Your task to perform on an android device: stop showing notifications on the lock screen Image 0: 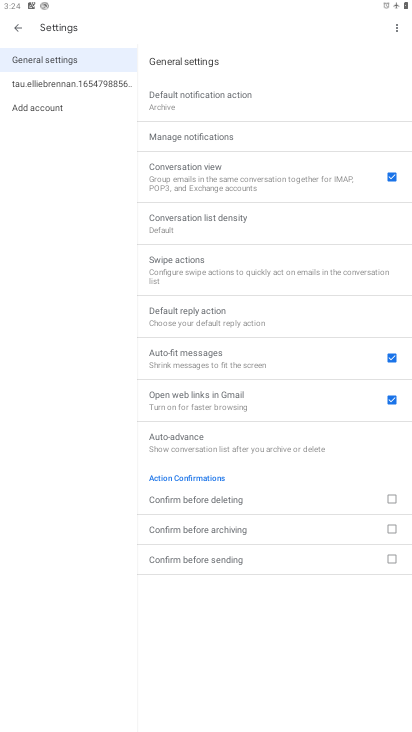
Step 0: press home button
Your task to perform on an android device: stop showing notifications on the lock screen Image 1: 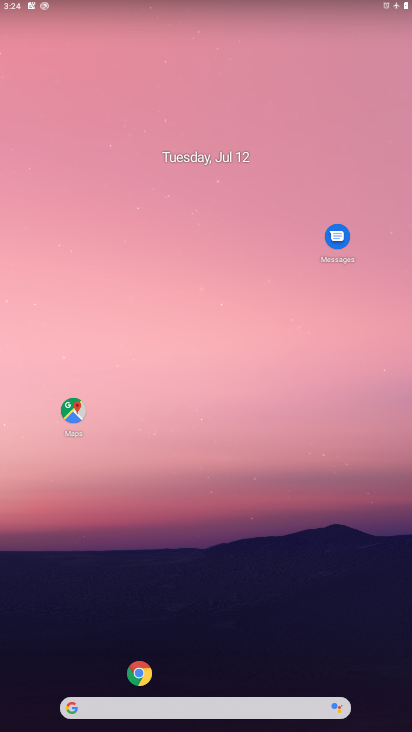
Step 1: drag from (52, 704) to (144, 237)
Your task to perform on an android device: stop showing notifications on the lock screen Image 2: 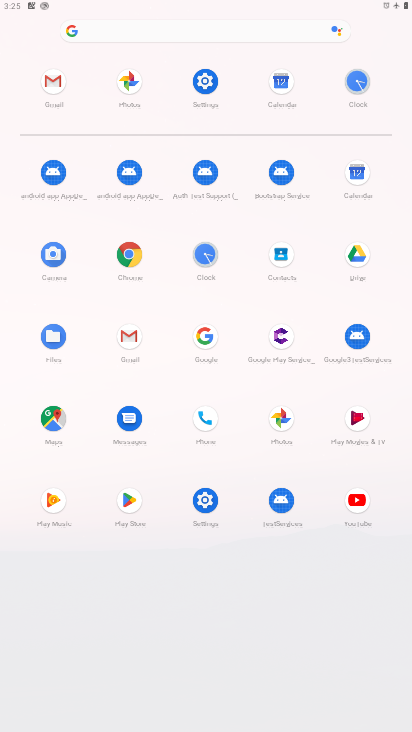
Step 2: click (201, 507)
Your task to perform on an android device: stop showing notifications on the lock screen Image 3: 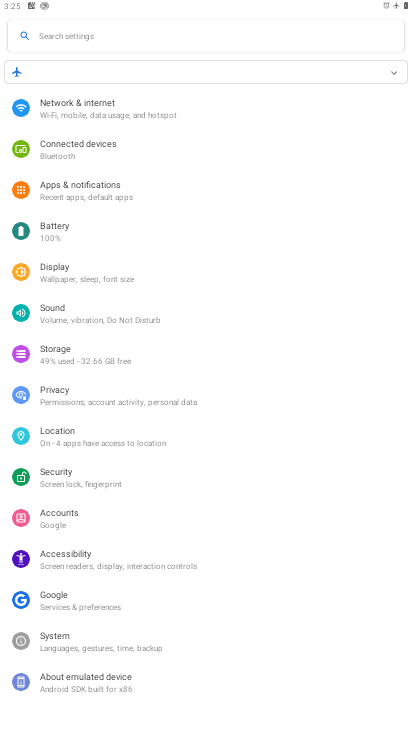
Step 3: click (97, 197)
Your task to perform on an android device: stop showing notifications on the lock screen Image 4: 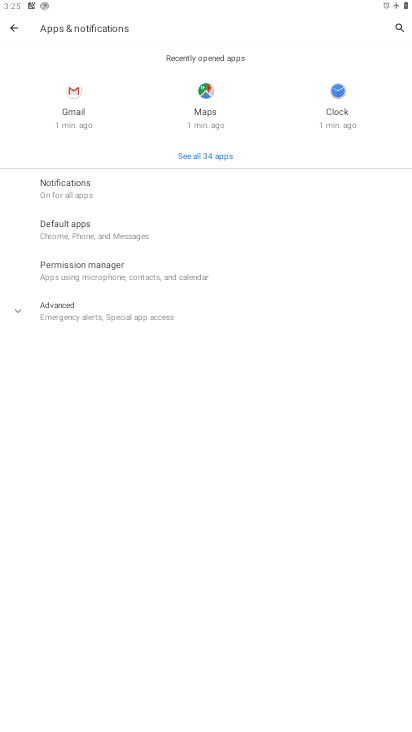
Step 4: click (72, 193)
Your task to perform on an android device: stop showing notifications on the lock screen Image 5: 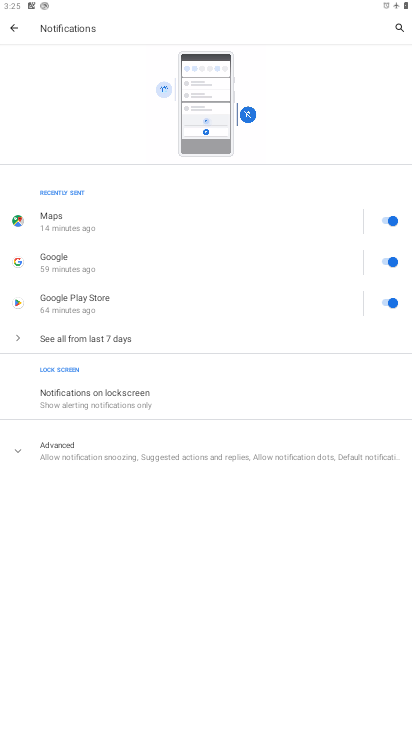
Step 5: click (122, 397)
Your task to perform on an android device: stop showing notifications on the lock screen Image 6: 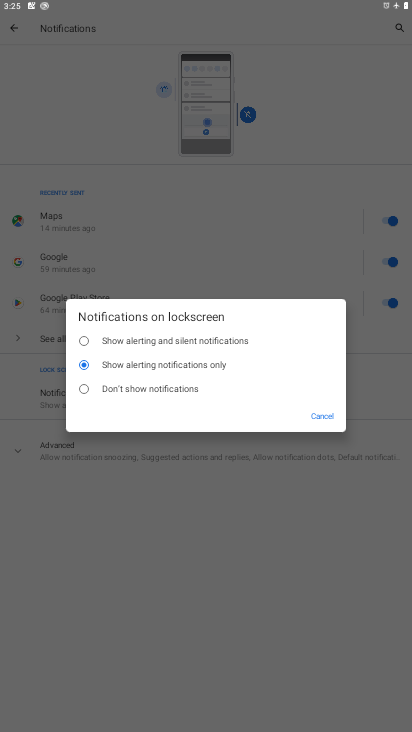
Step 6: click (86, 386)
Your task to perform on an android device: stop showing notifications on the lock screen Image 7: 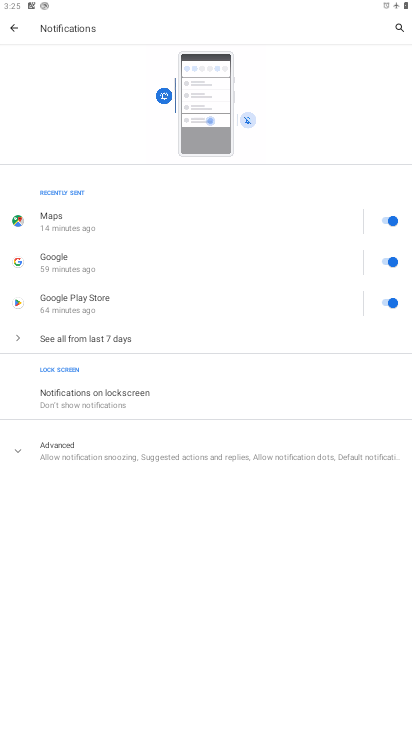
Step 7: task complete